Your task to perform on an android device: Show me popular games on the Play Store Image 0: 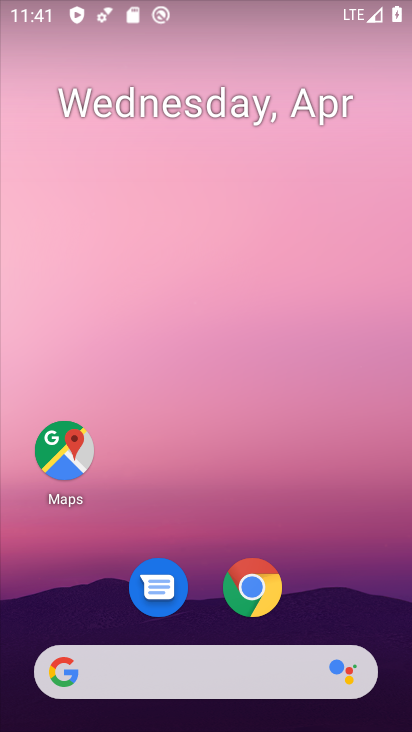
Step 0: drag from (336, 587) to (325, 254)
Your task to perform on an android device: Show me popular games on the Play Store Image 1: 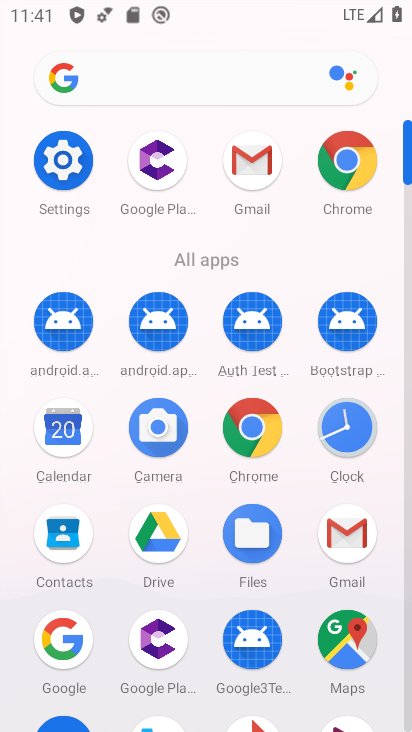
Step 1: click (409, 630)
Your task to perform on an android device: Show me popular games on the Play Store Image 2: 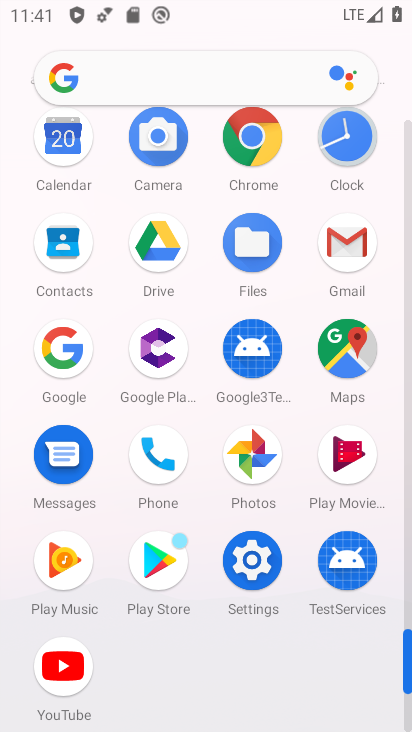
Step 2: click (168, 557)
Your task to perform on an android device: Show me popular games on the Play Store Image 3: 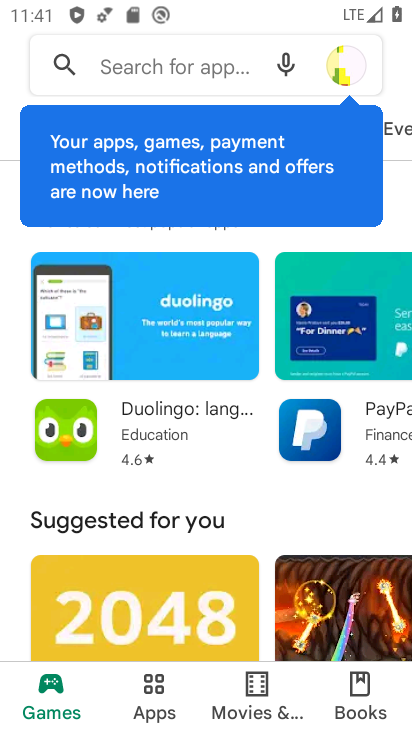
Step 3: task complete